Your task to perform on an android device: find which apps use the phone's location Image 0: 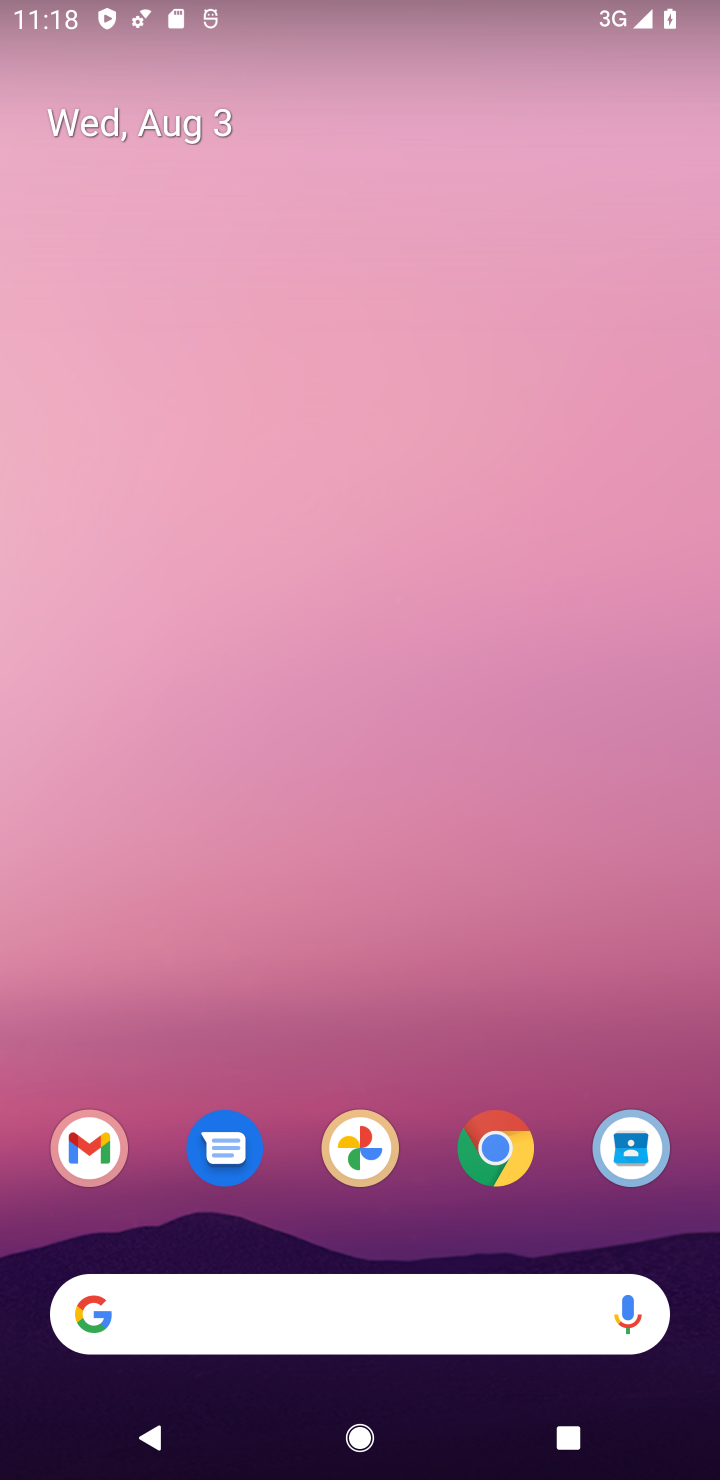
Step 0: drag from (379, 996) to (444, 531)
Your task to perform on an android device: find which apps use the phone's location Image 1: 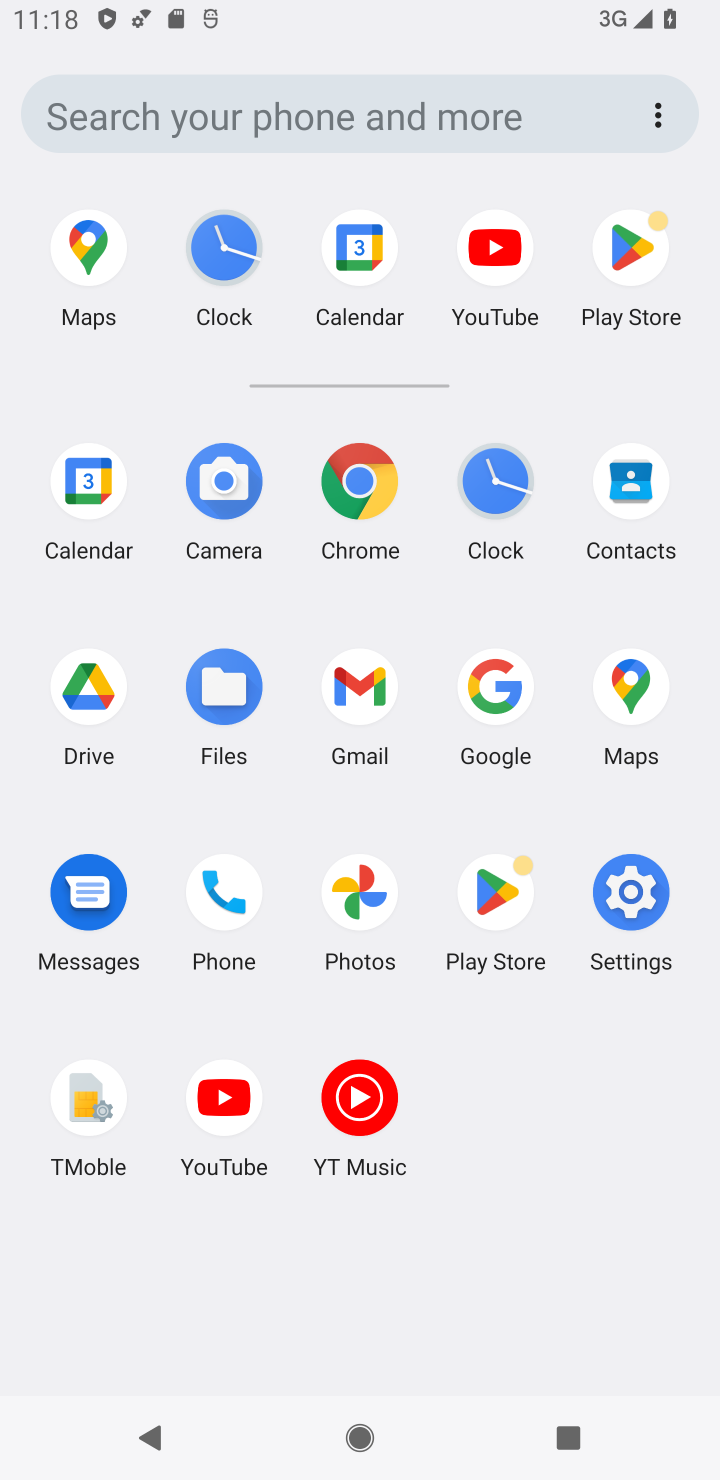
Step 1: click (639, 874)
Your task to perform on an android device: find which apps use the phone's location Image 2: 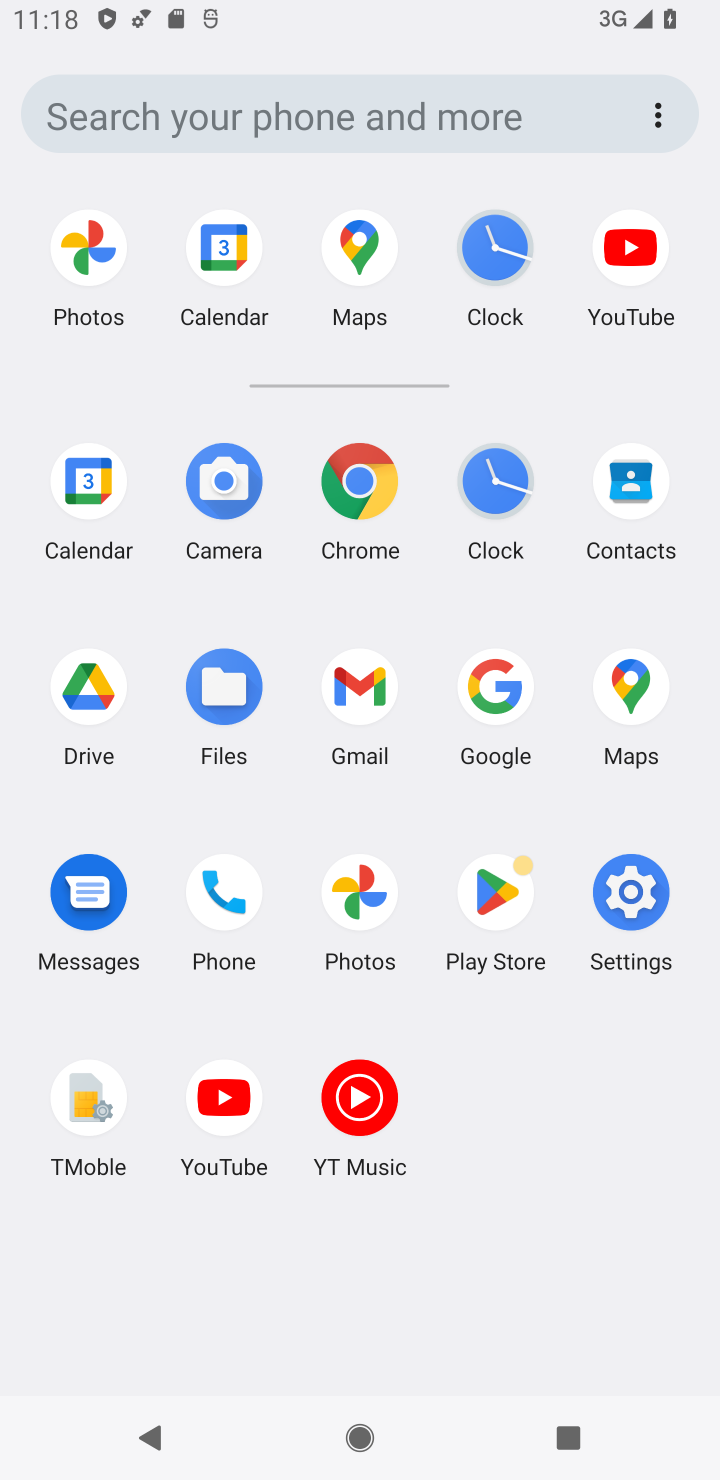
Step 2: click (643, 890)
Your task to perform on an android device: find which apps use the phone's location Image 3: 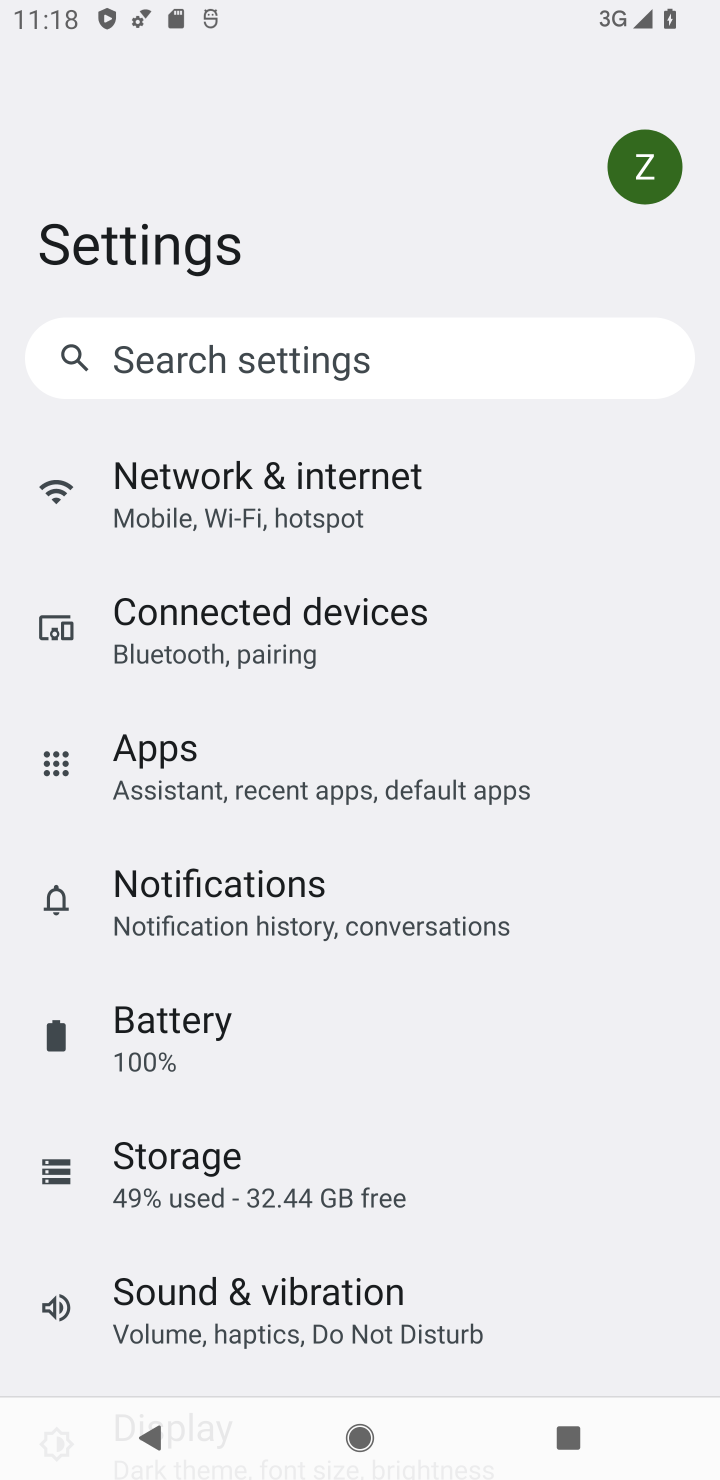
Step 3: task complete